Your task to perform on an android device: check data usage Image 0: 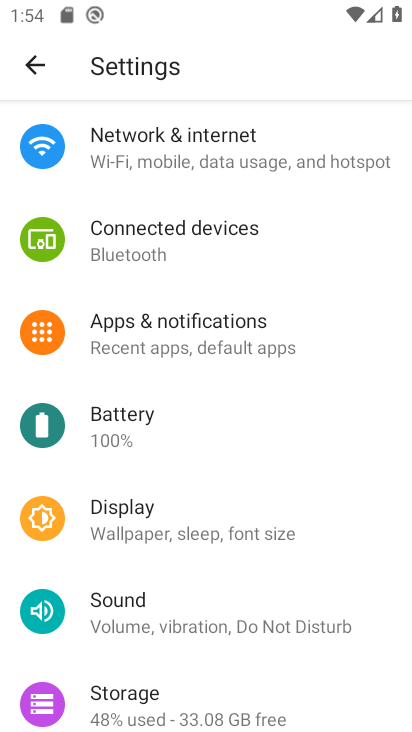
Step 0: click (202, 146)
Your task to perform on an android device: check data usage Image 1: 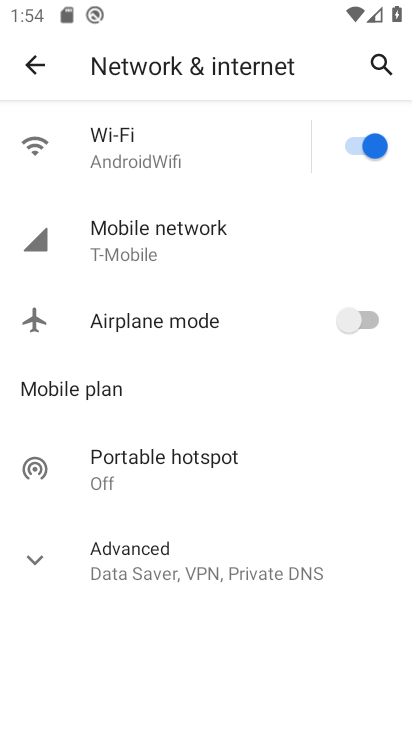
Step 1: click (158, 226)
Your task to perform on an android device: check data usage Image 2: 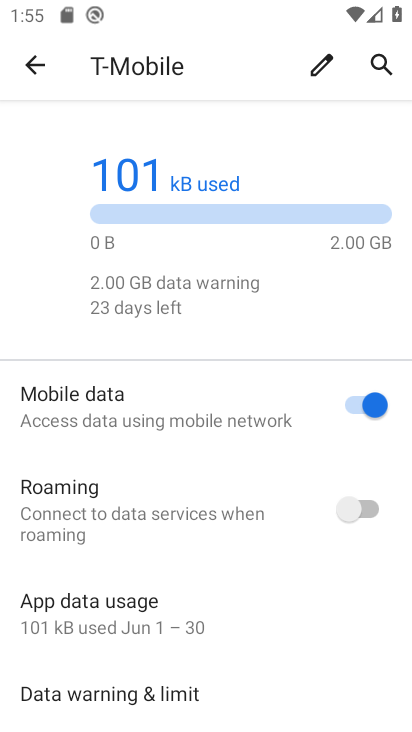
Step 2: task complete